Your task to perform on an android device: turn off picture-in-picture Image 0: 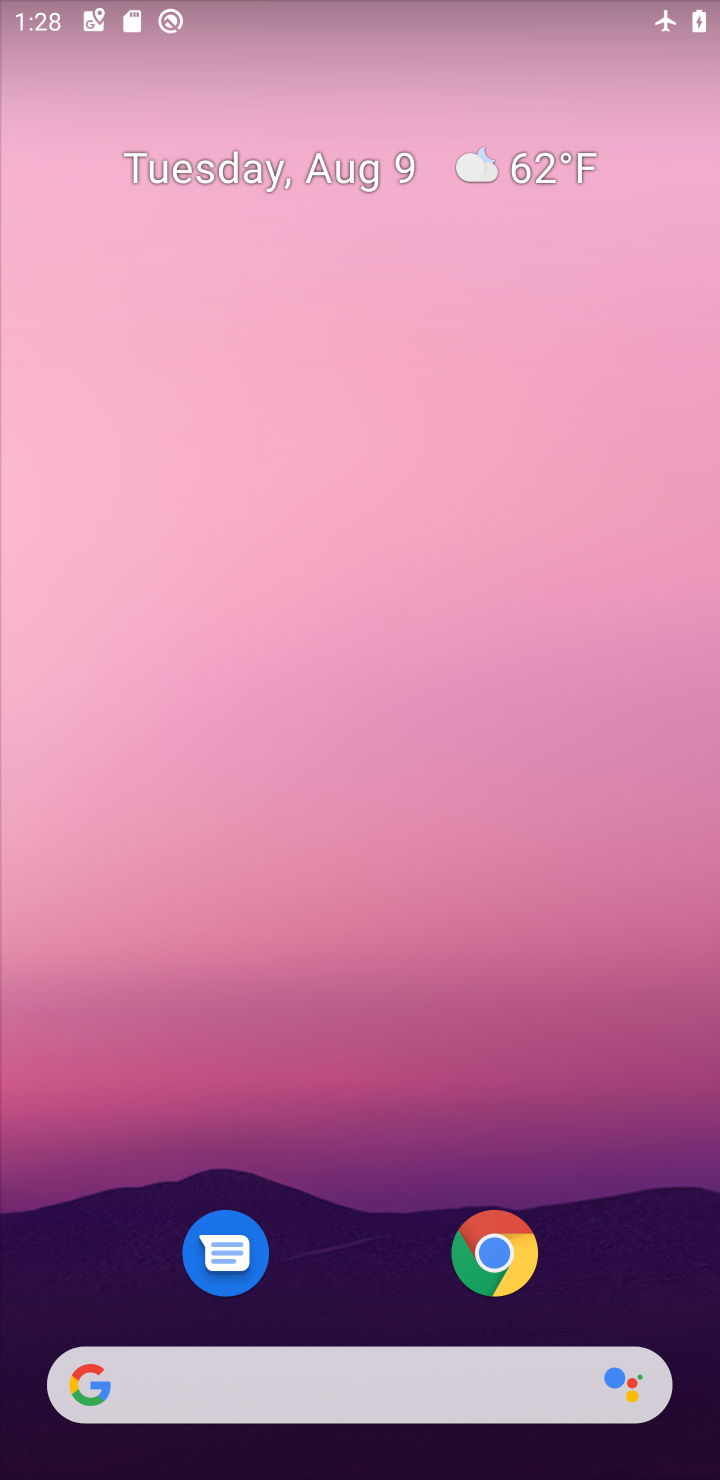
Step 0: drag from (643, 1097) to (409, 7)
Your task to perform on an android device: turn off picture-in-picture Image 1: 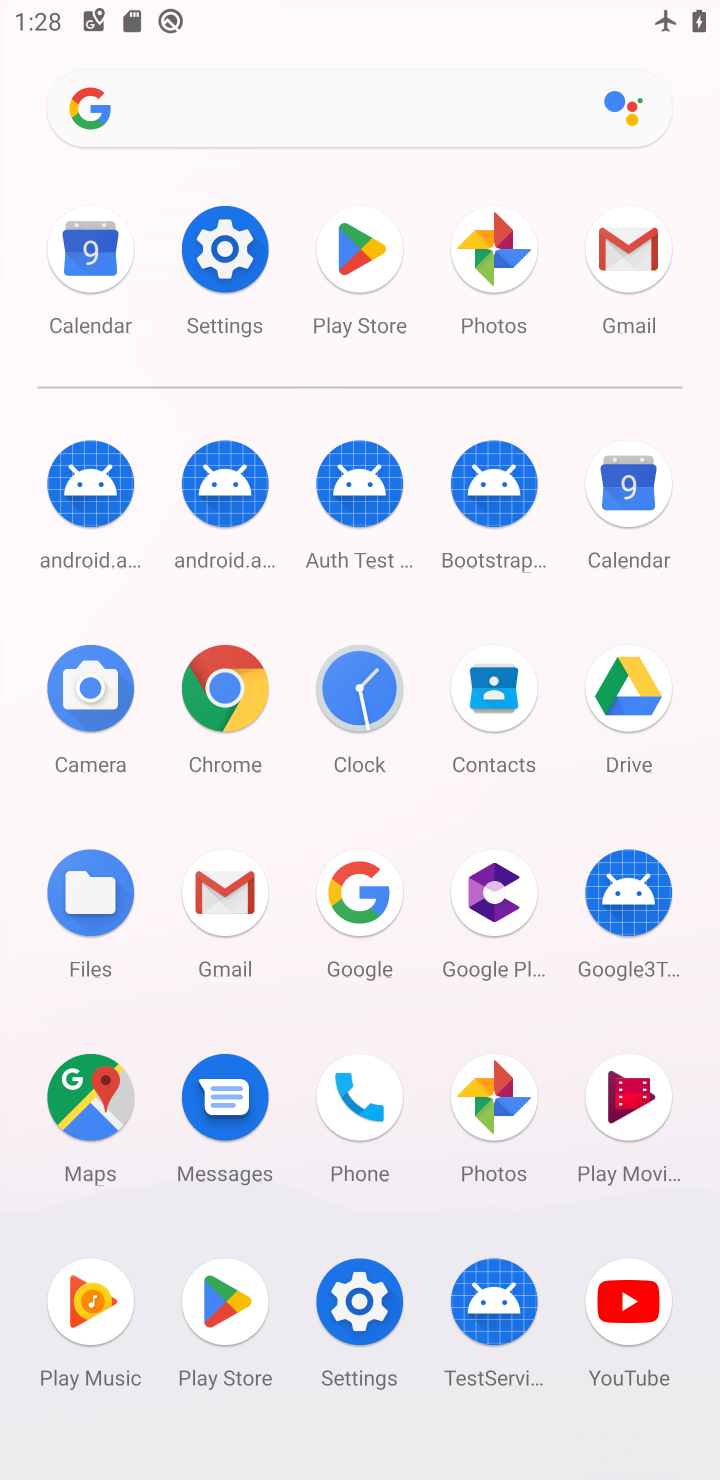
Step 1: click (212, 720)
Your task to perform on an android device: turn off picture-in-picture Image 2: 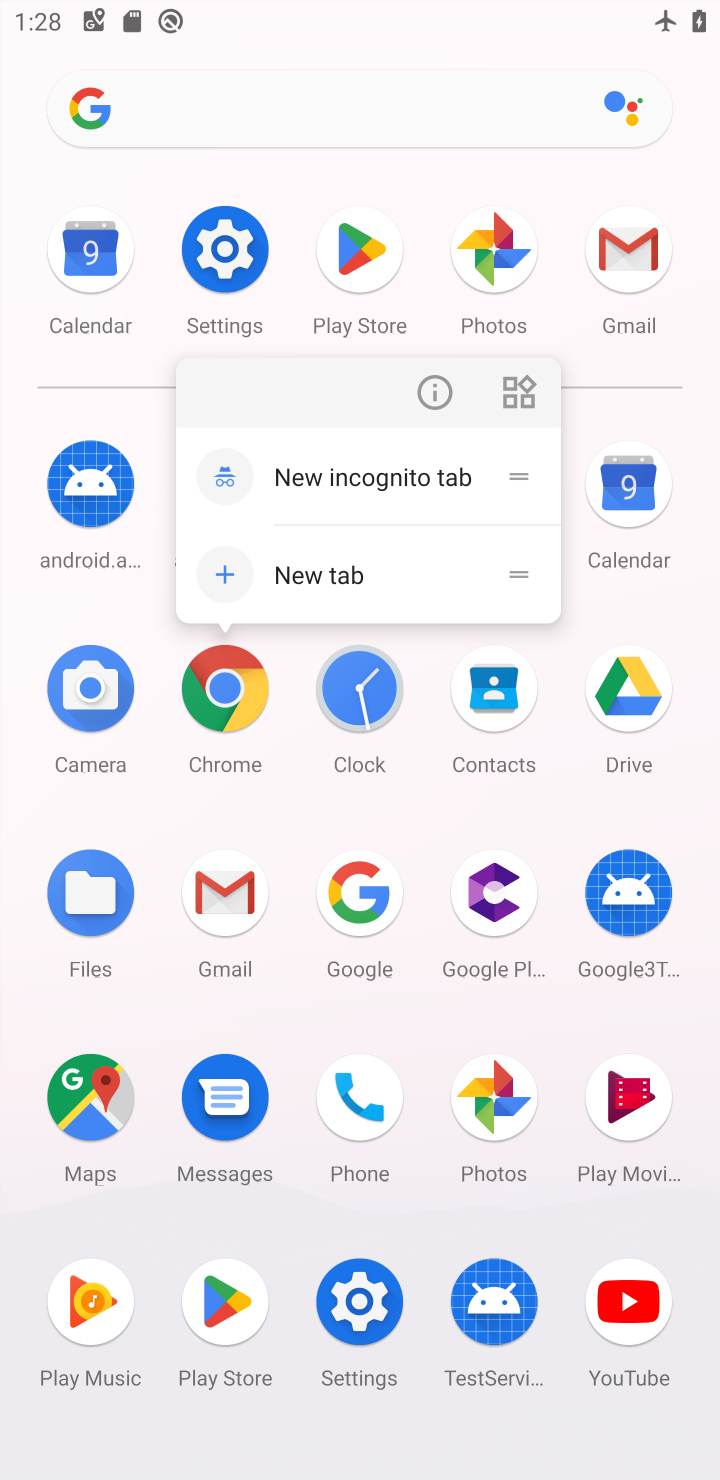
Step 2: click (214, 722)
Your task to perform on an android device: turn off picture-in-picture Image 3: 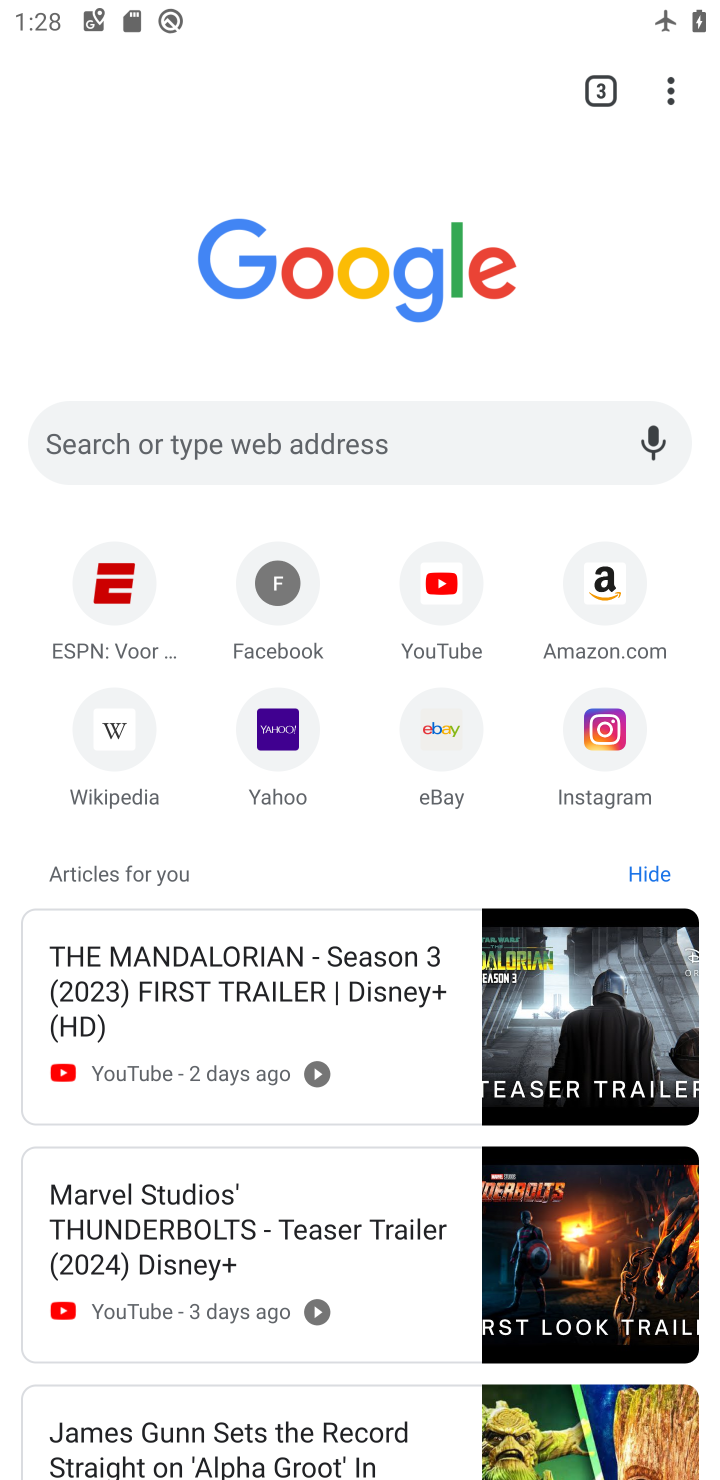
Step 3: task complete